Your task to perform on an android device: delete browsing data in the chrome app Image 0: 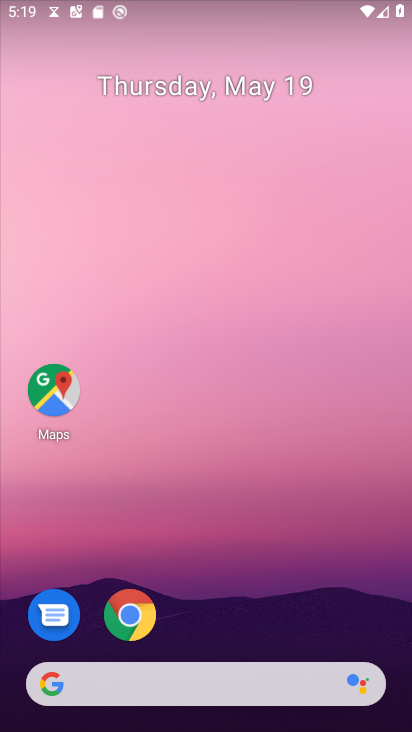
Step 0: drag from (158, 645) to (228, 74)
Your task to perform on an android device: delete browsing data in the chrome app Image 1: 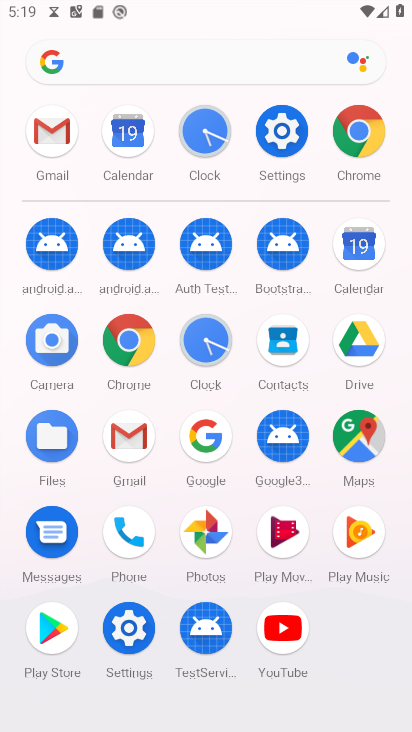
Step 1: click (140, 342)
Your task to perform on an android device: delete browsing data in the chrome app Image 2: 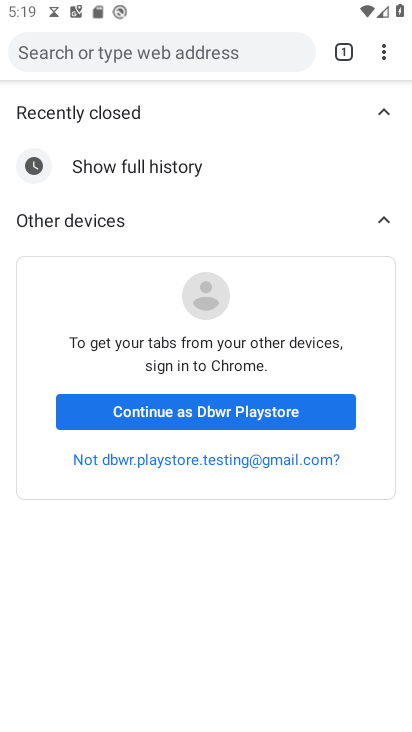
Step 2: click (391, 48)
Your task to perform on an android device: delete browsing data in the chrome app Image 3: 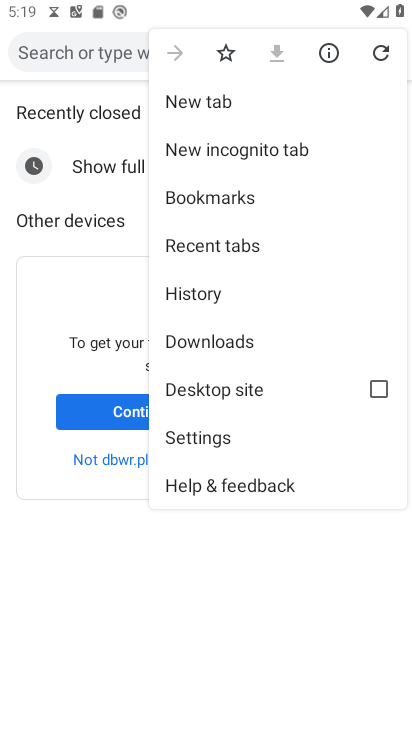
Step 3: click (225, 444)
Your task to perform on an android device: delete browsing data in the chrome app Image 4: 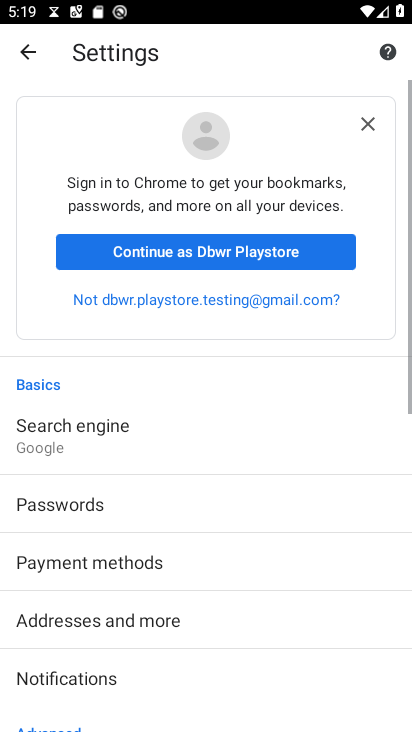
Step 4: drag from (312, 682) to (288, 127)
Your task to perform on an android device: delete browsing data in the chrome app Image 5: 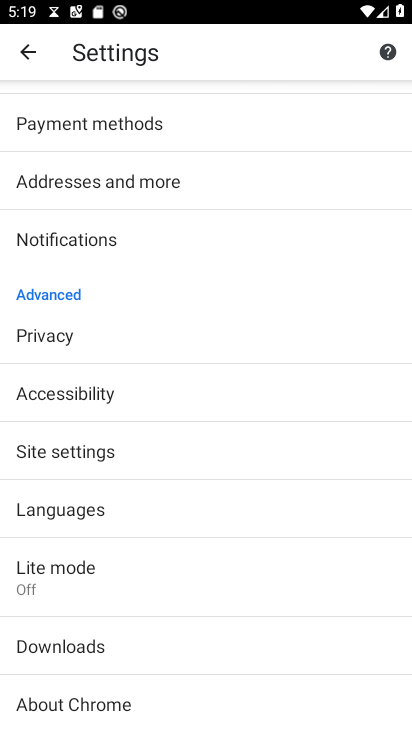
Step 5: drag from (214, 694) to (223, 463)
Your task to perform on an android device: delete browsing data in the chrome app Image 6: 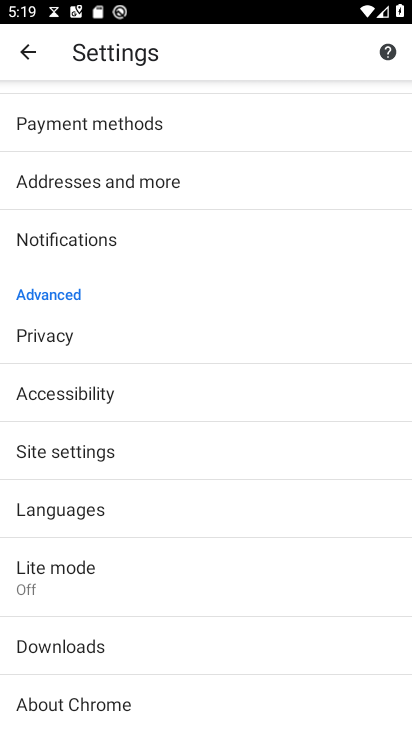
Step 6: click (156, 345)
Your task to perform on an android device: delete browsing data in the chrome app Image 7: 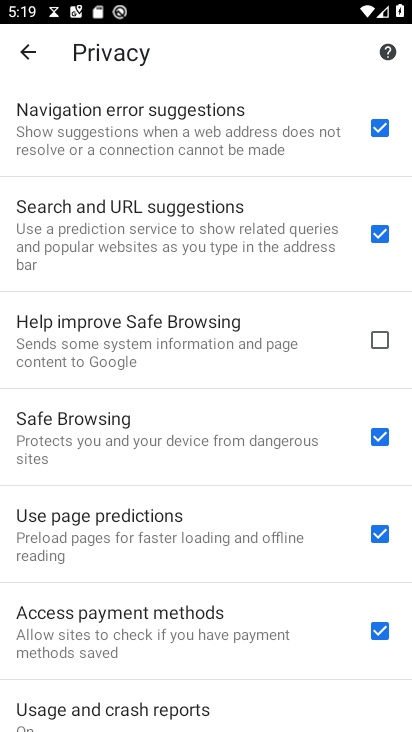
Step 7: drag from (253, 636) to (314, 102)
Your task to perform on an android device: delete browsing data in the chrome app Image 8: 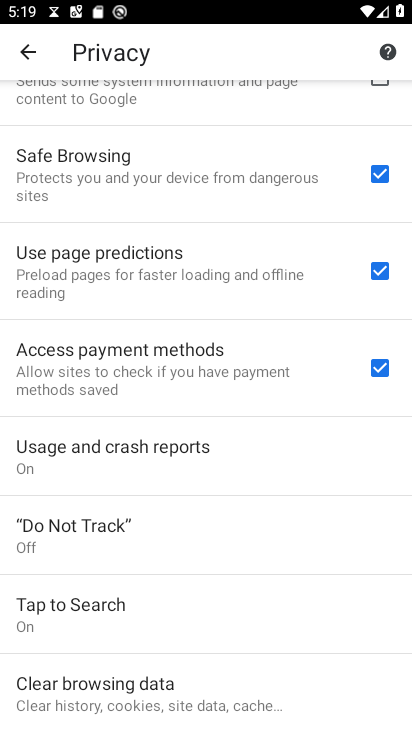
Step 8: click (264, 697)
Your task to perform on an android device: delete browsing data in the chrome app Image 9: 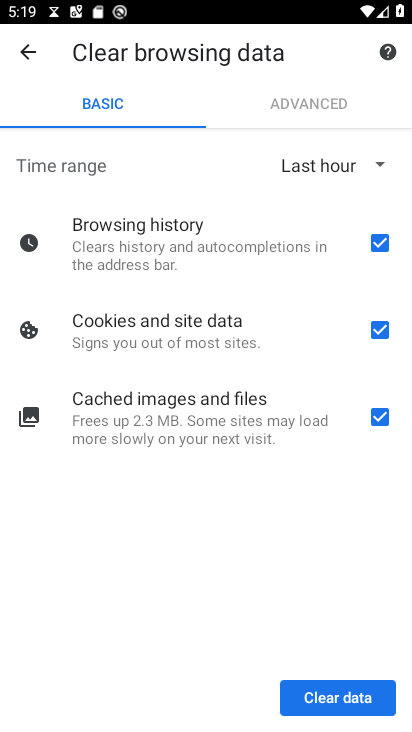
Step 9: task complete